Your task to perform on an android device: What is the news today? Image 0: 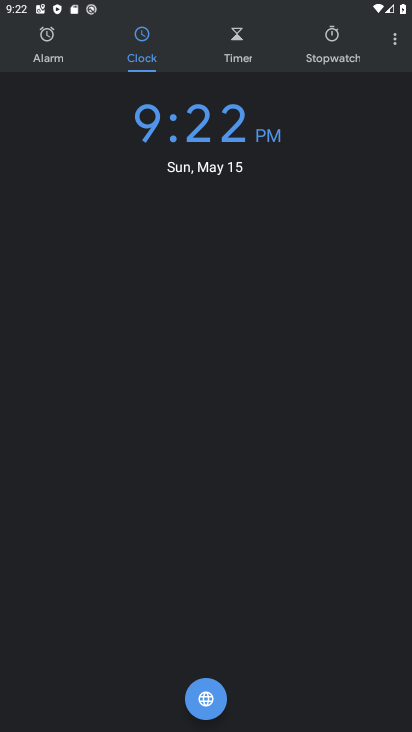
Step 0: press home button
Your task to perform on an android device: What is the news today? Image 1: 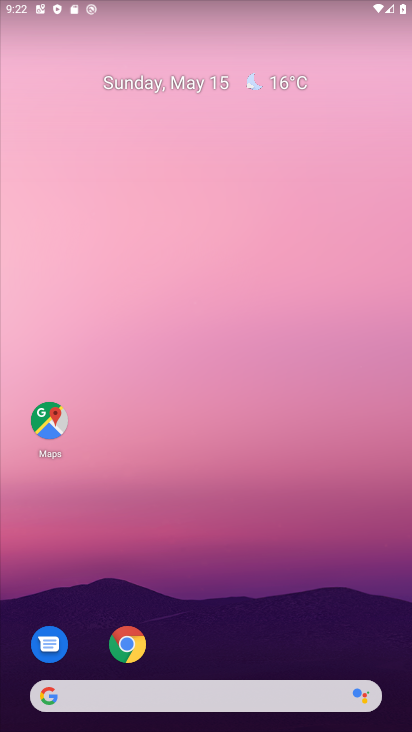
Step 1: drag from (184, 664) to (211, 311)
Your task to perform on an android device: What is the news today? Image 2: 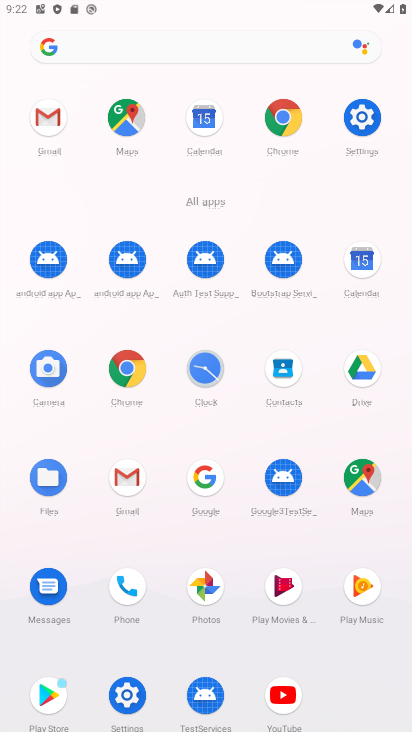
Step 2: click (199, 487)
Your task to perform on an android device: What is the news today? Image 3: 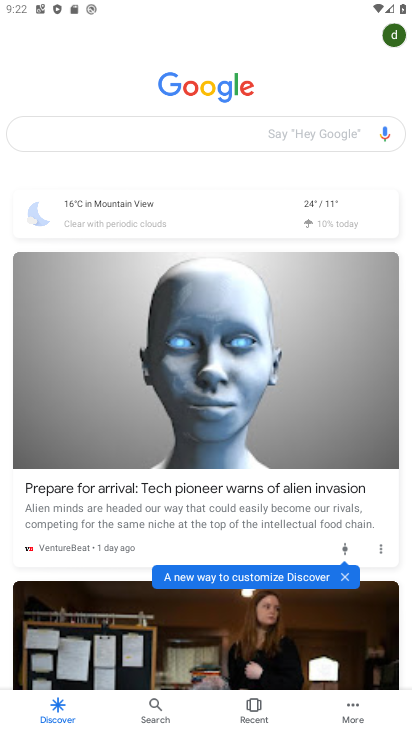
Step 3: click (112, 137)
Your task to perform on an android device: What is the news today? Image 4: 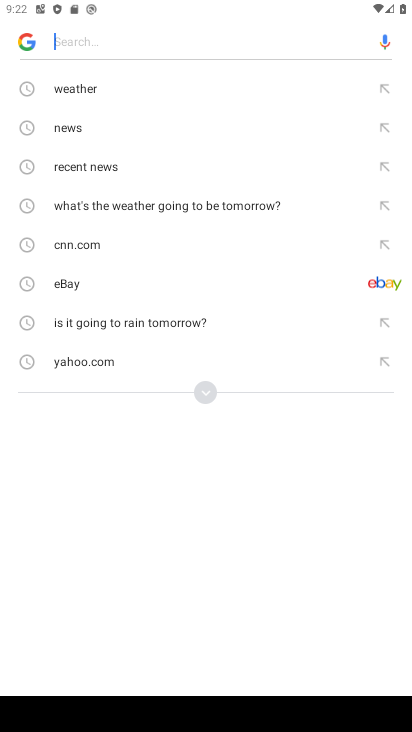
Step 4: click (84, 123)
Your task to perform on an android device: What is the news today? Image 5: 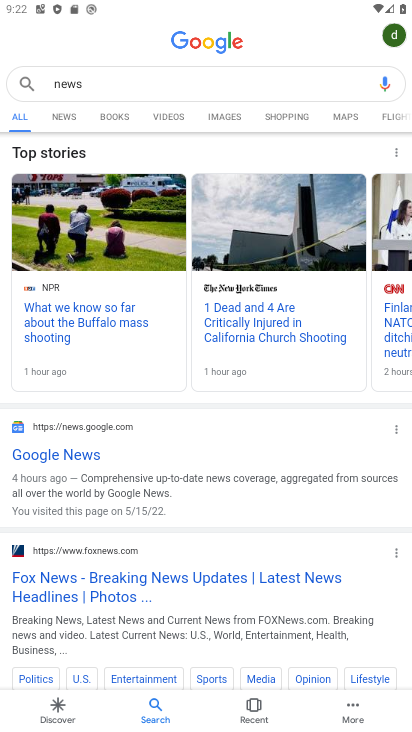
Step 5: task complete